Your task to perform on an android device: Open Google Chrome and click the shortcut for Amazon.com Image 0: 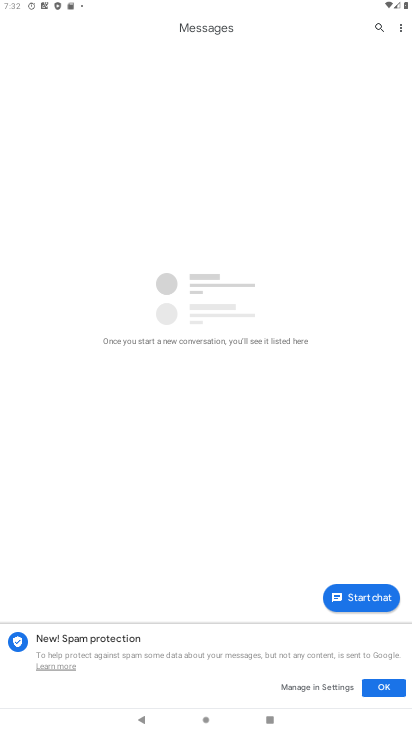
Step 0: press home button
Your task to perform on an android device: Open Google Chrome and click the shortcut for Amazon.com Image 1: 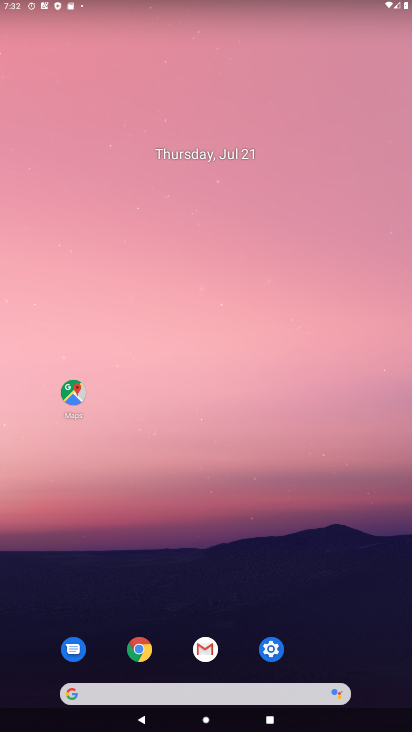
Step 1: click (138, 642)
Your task to perform on an android device: Open Google Chrome and click the shortcut for Amazon.com Image 2: 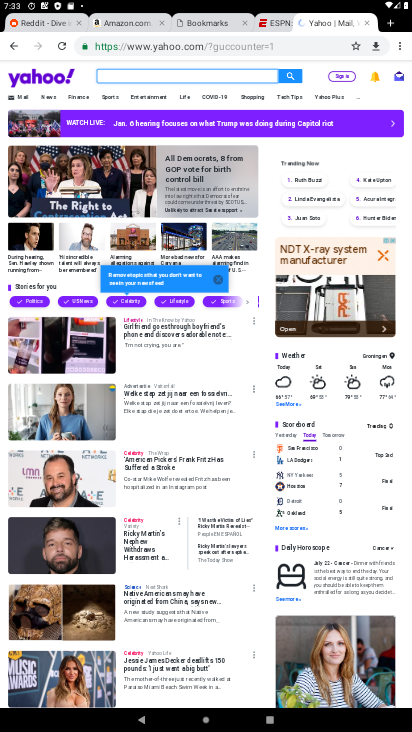
Step 2: click (390, 25)
Your task to perform on an android device: Open Google Chrome and click the shortcut for Amazon.com Image 3: 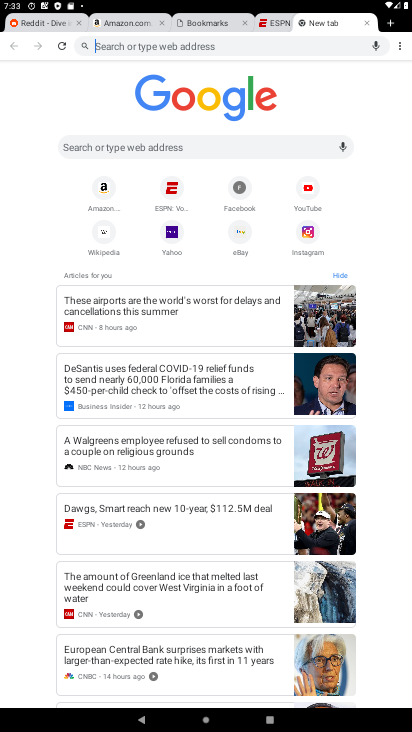
Step 3: click (100, 198)
Your task to perform on an android device: Open Google Chrome and click the shortcut for Amazon.com Image 4: 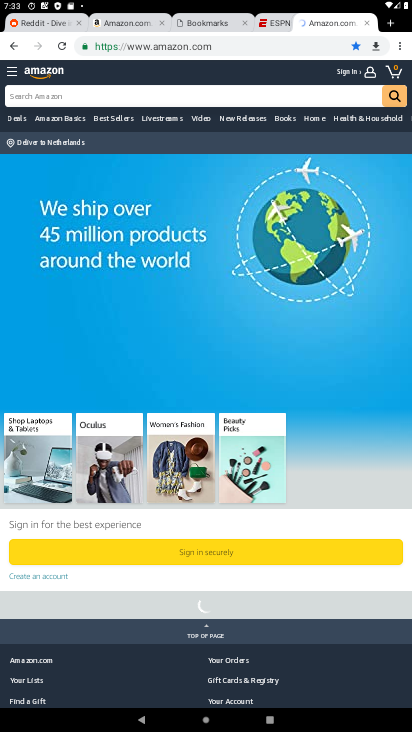
Step 4: click (401, 49)
Your task to perform on an android device: Open Google Chrome and click the shortcut for Amazon.com Image 5: 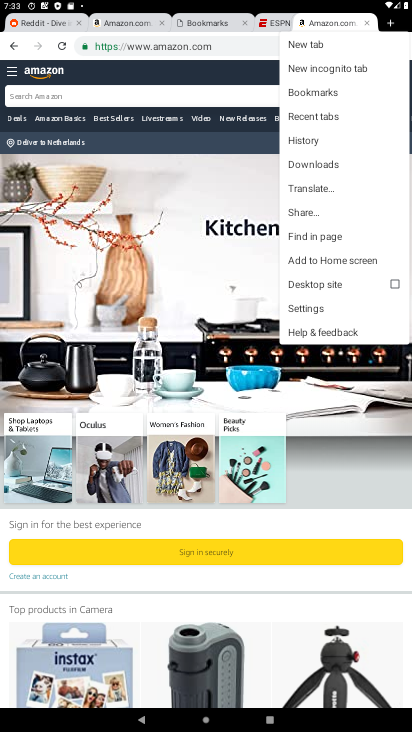
Step 5: click (306, 259)
Your task to perform on an android device: Open Google Chrome and click the shortcut for Amazon.com Image 6: 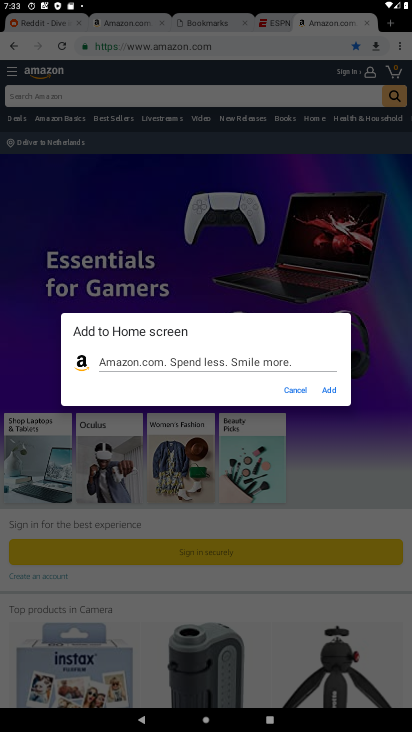
Step 6: click (329, 389)
Your task to perform on an android device: Open Google Chrome and click the shortcut for Amazon.com Image 7: 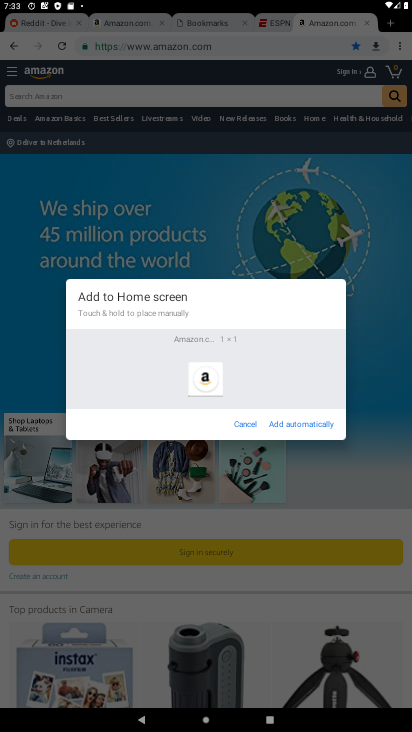
Step 7: click (311, 423)
Your task to perform on an android device: Open Google Chrome and click the shortcut for Amazon.com Image 8: 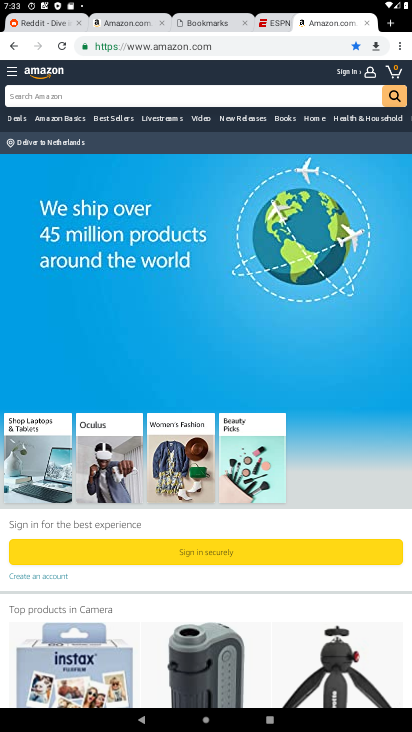
Step 8: task complete